Your task to perform on an android device: turn off priority inbox in the gmail app Image 0: 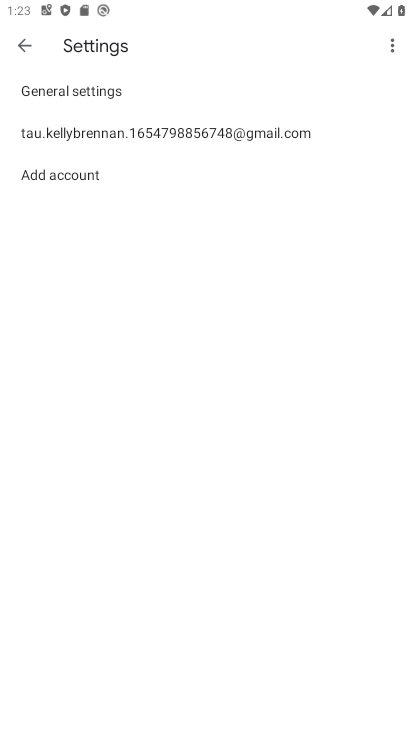
Step 0: click (172, 131)
Your task to perform on an android device: turn off priority inbox in the gmail app Image 1: 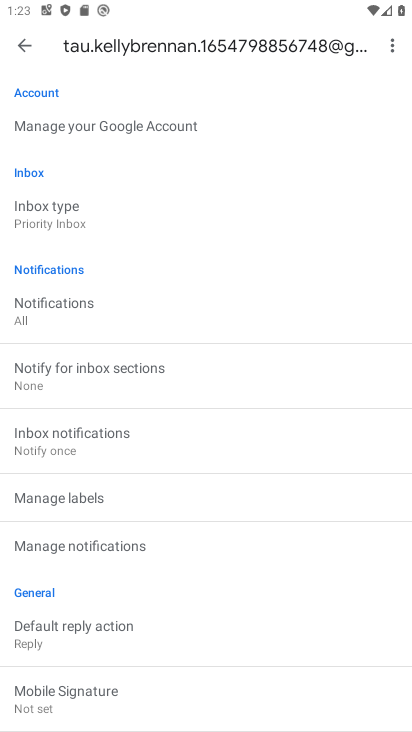
Step 1: click (29, 214)
Your task to perform on an android device: turn off priority inbox in the gmail app Image 2: 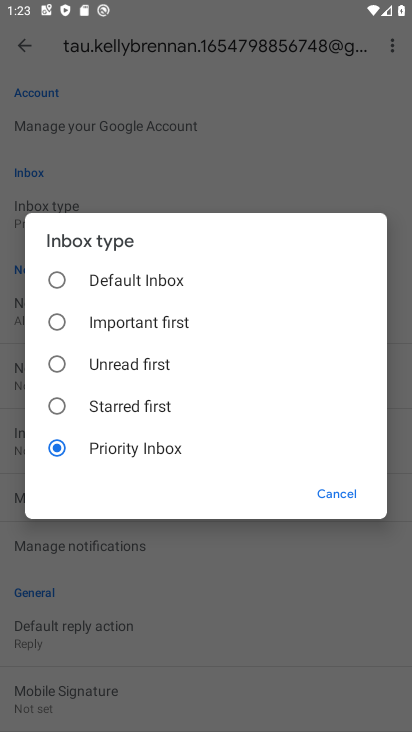
Step 2: task complete